Your task to perform on an android device: Open Amazon Image 0: 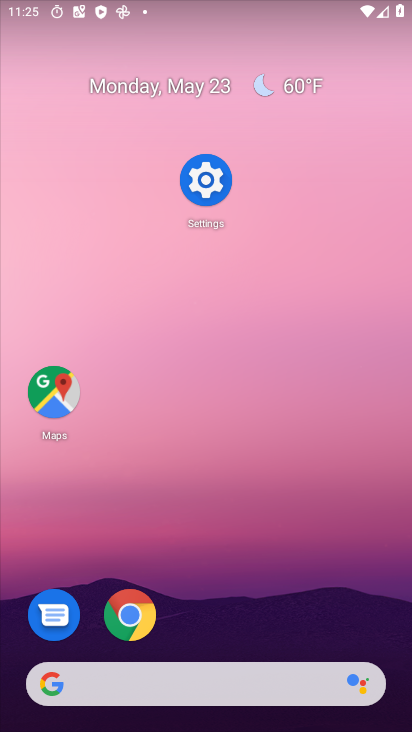
Step 0: click (128, 617)
Your task to perform on an android device: Open Amazon Image 1: 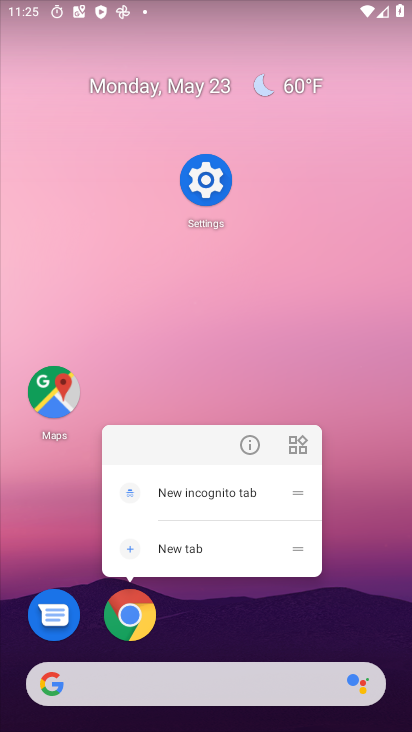
Step 1: click (128, 617)
Your task to perform on an android device: Open Amazon Image 2: 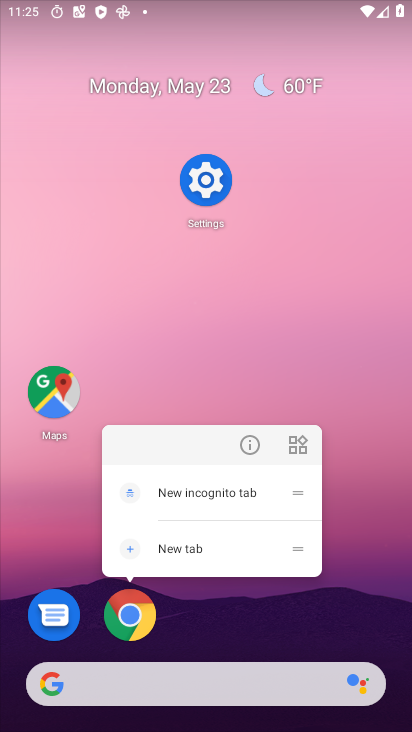
Step 2: click (128, 617)
Your task to perform on an android device: Open Amazon Image 3: 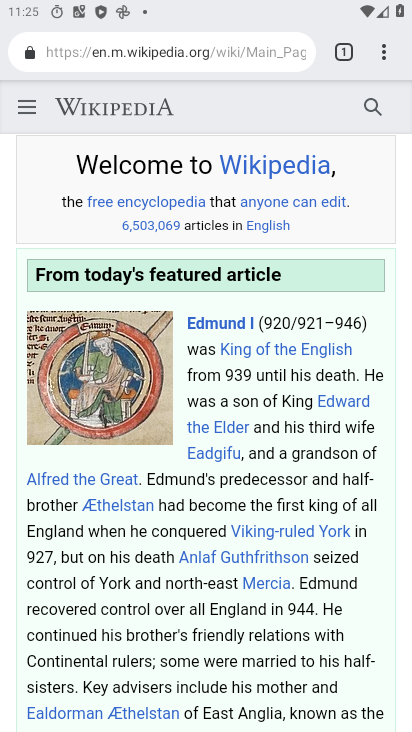
Step 3: task complete